Your task to perform on an android device: Show me popular games on the Play Store Image 0: 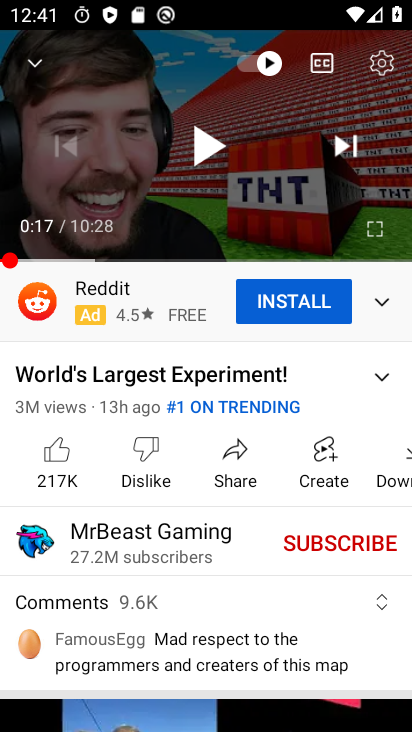
Step 0: press home button
Your task to perform on an android device: Show me popular games on the Play Store Image 1: 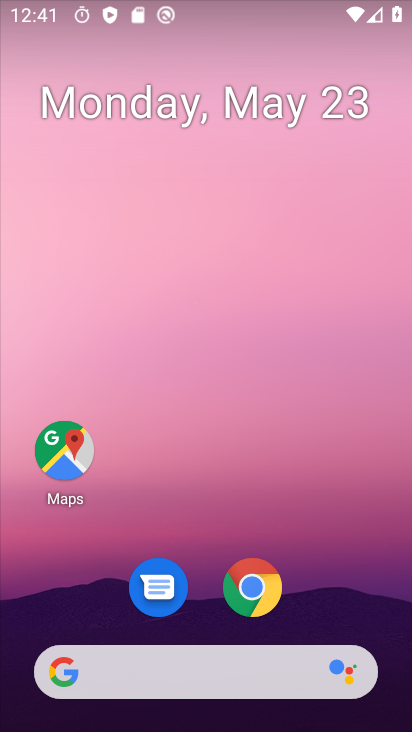
Step 1: drag from (210, 585) to (274, 137)
Your task to perform on an android device: Show me popular games on the Play Store Image 2: 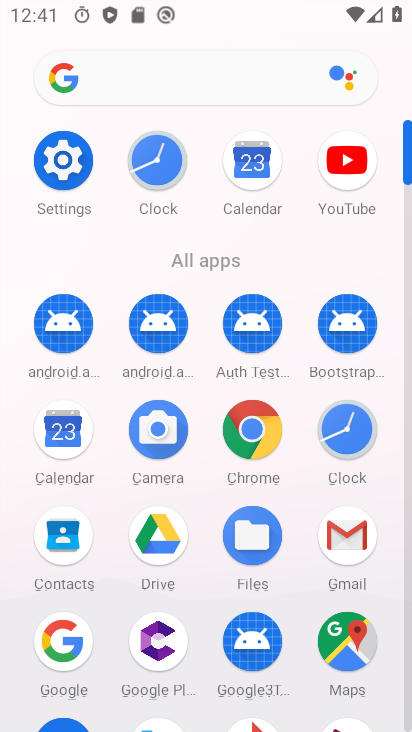
Step 2: drag from (224, 672) to (292, 178)
Your task to perform on an android device: Show me popular games on the Play Store Image 3: 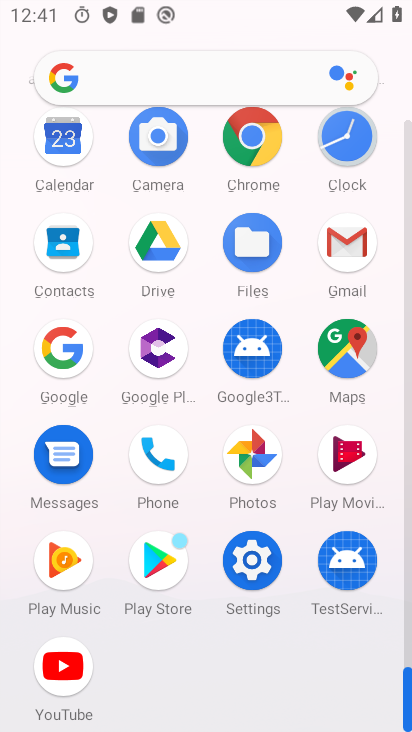
Step 3: click (166, 566)
Your task to perform on an android device: Show me popular games on the Play Store Image 4: 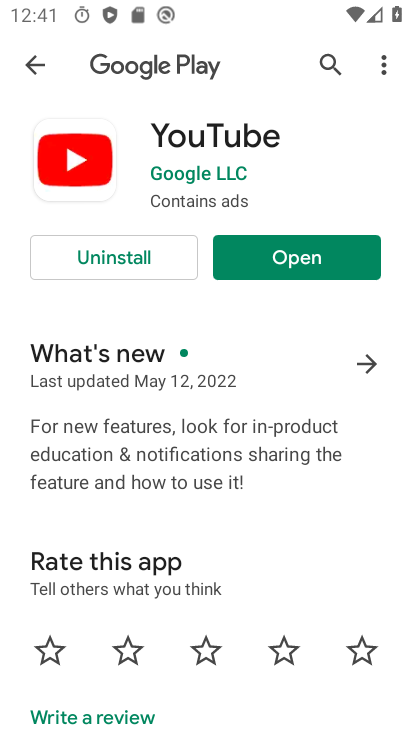
Step 4: click (29, 60)
Your task to perform on an android device: Show me popular games on the Play Store Image 5: 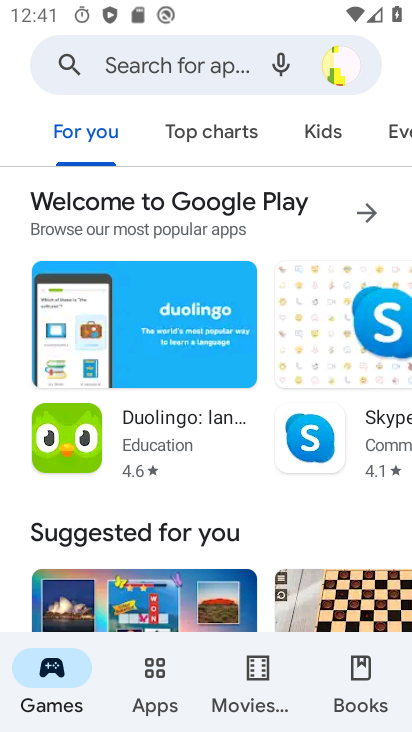
Step 5: drag from (228, 537) to (294, 64)
Your task to perform on an android device: Show me popular games on the Play Store Image 6: 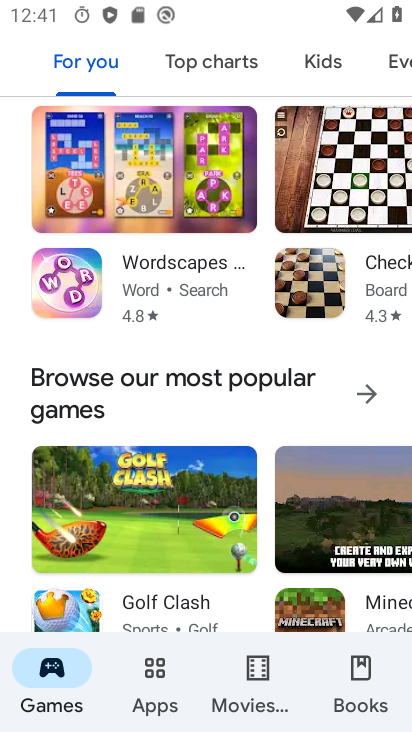
Step 6: click (350, 390)
Your task to perform on an android device: Show me popular games on the Play Store Image 7: 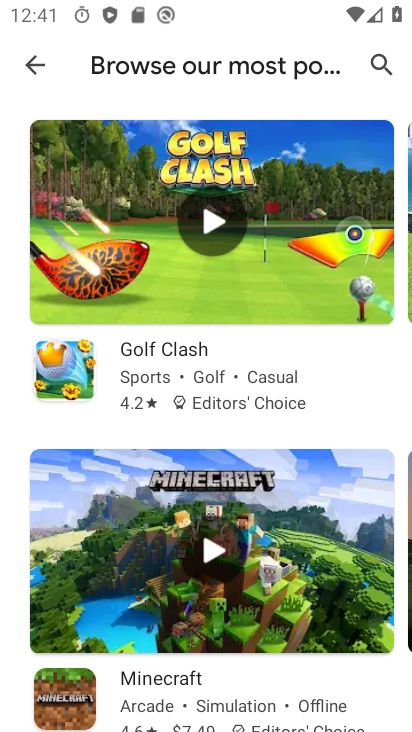
Step 7: task complete